Your task to perform on an android device: check storage Image 0: 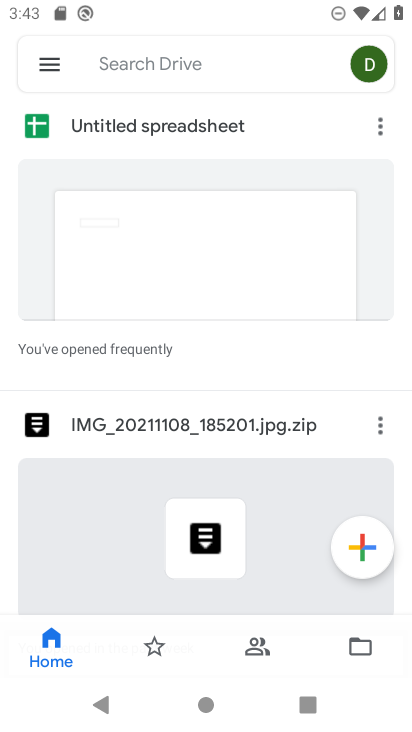
Step 0: press home button
Your task to perform on an android device: check storage Image 1: 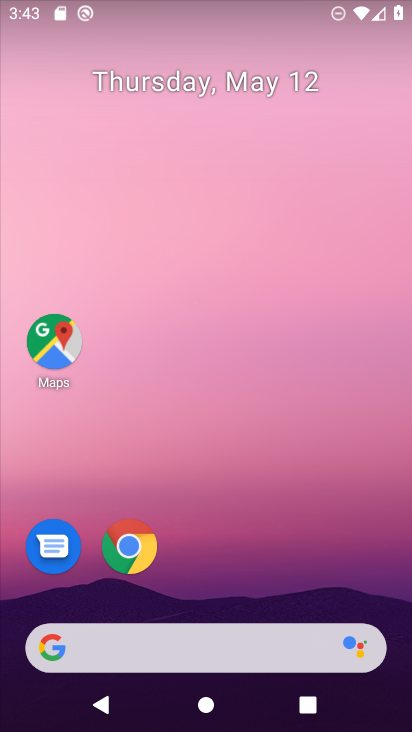
Step 1: drag from (188, 590) to (211, 312)
Your task to perform on an android device: check storage Image 2: 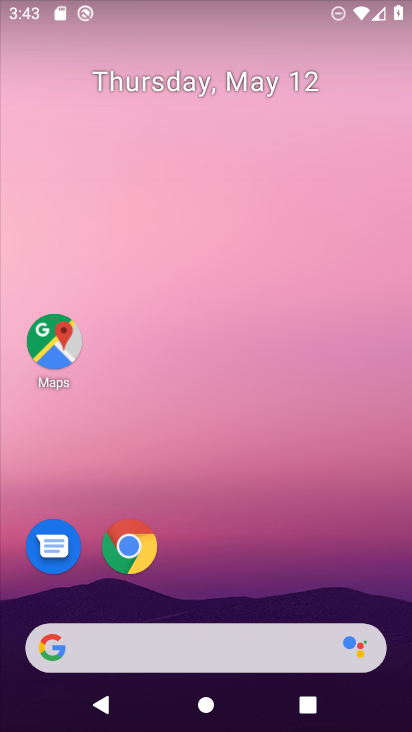
Step 2: drag from (179, 597) to (257, 259)
Your task to perform on an android device: check storage Image 3: 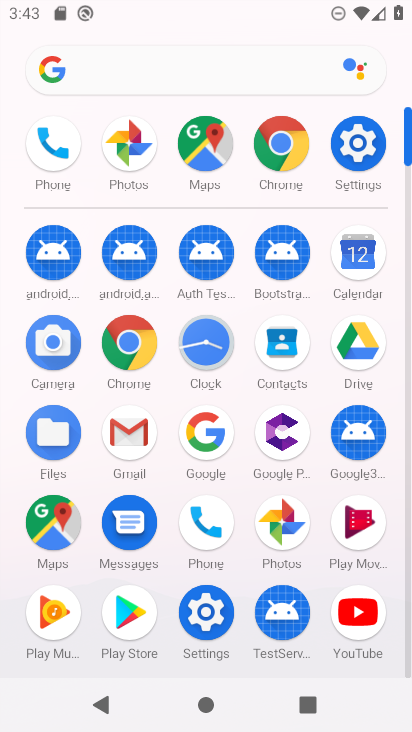
Step 3: click (346, 131)
Your task to perform on an android device: check storage Image 4: 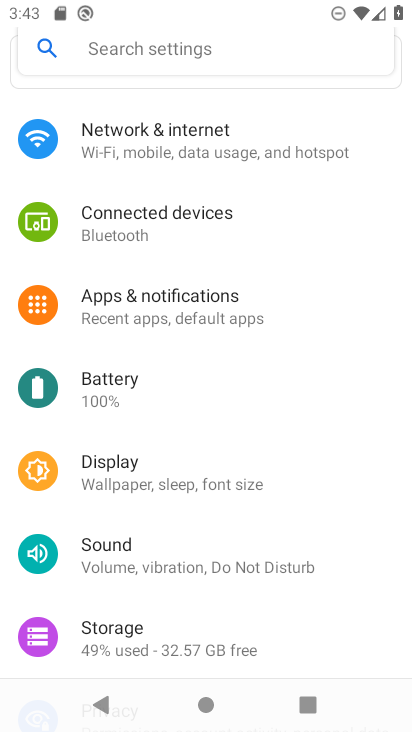
Step 4: click (196, 626)
Your task to perform on an android device: check storage Image 5: 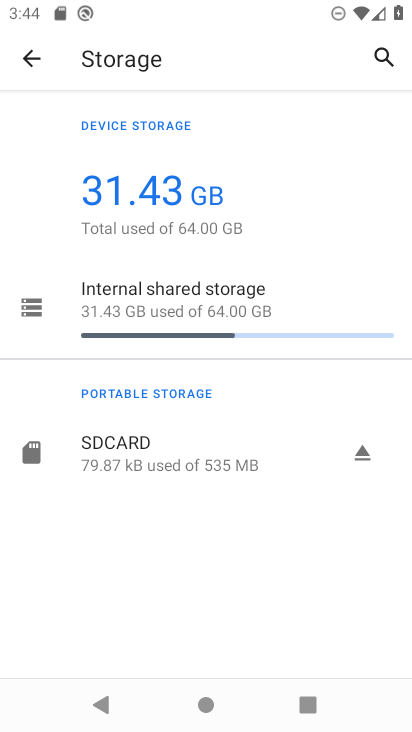
Step 5: task complete